Your task to perform on an android device: uninstall "McDonald's" Image 0: 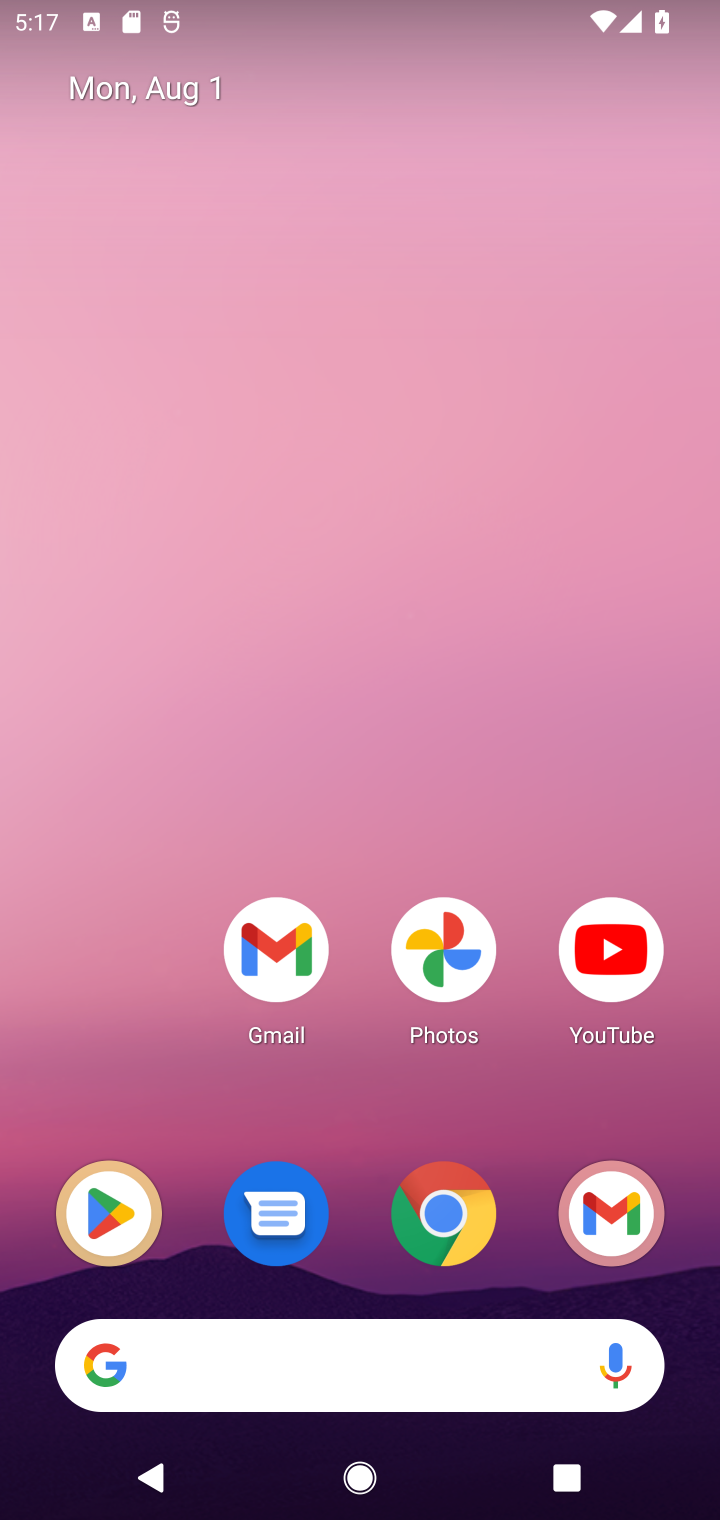
Step 0: drag from (532, 1073) to (514, 0)
Your task to perform on an android device: uninstall "McDonald's" Image 1: 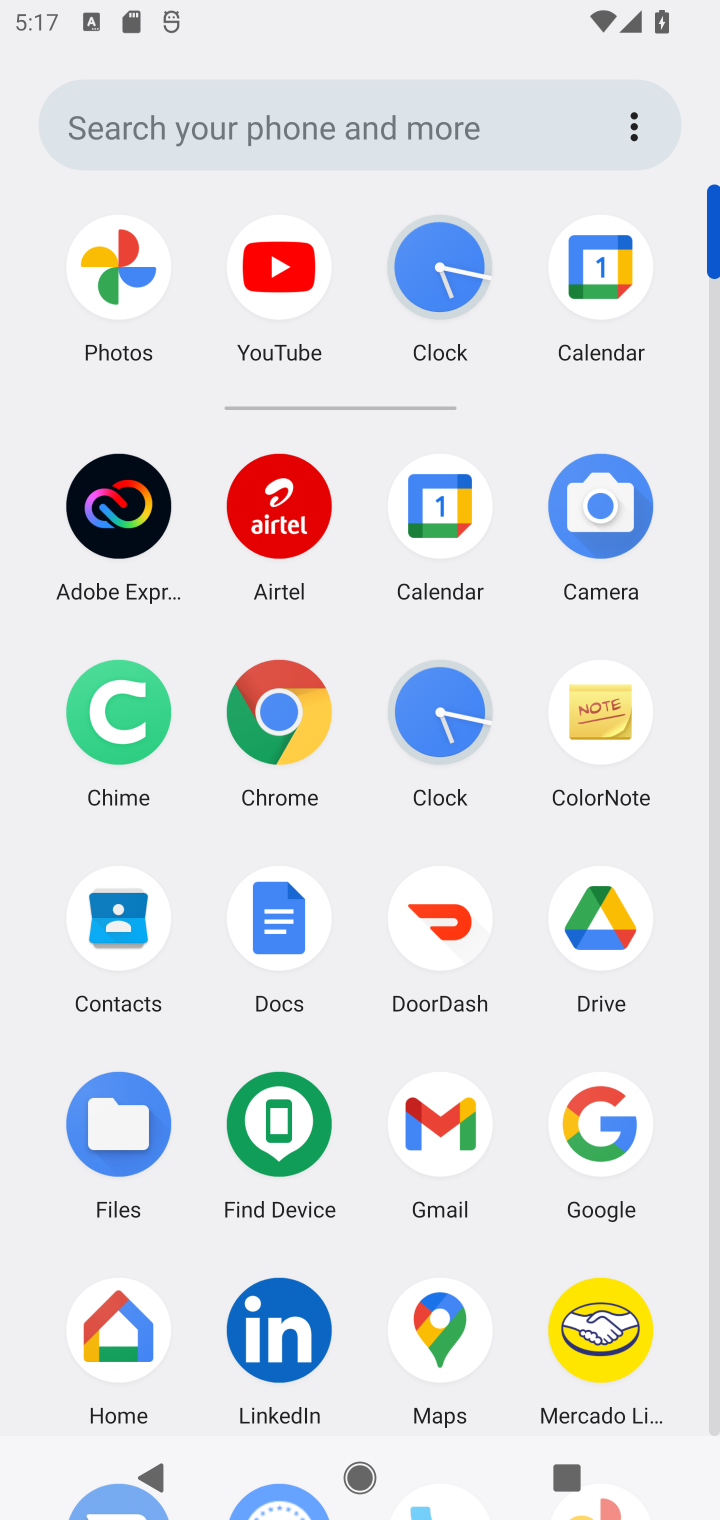
Step 1: drag from (502, 1214) to (504, 589)
Your task to perform on an android device: uninstall "McDonald's" Image 2: 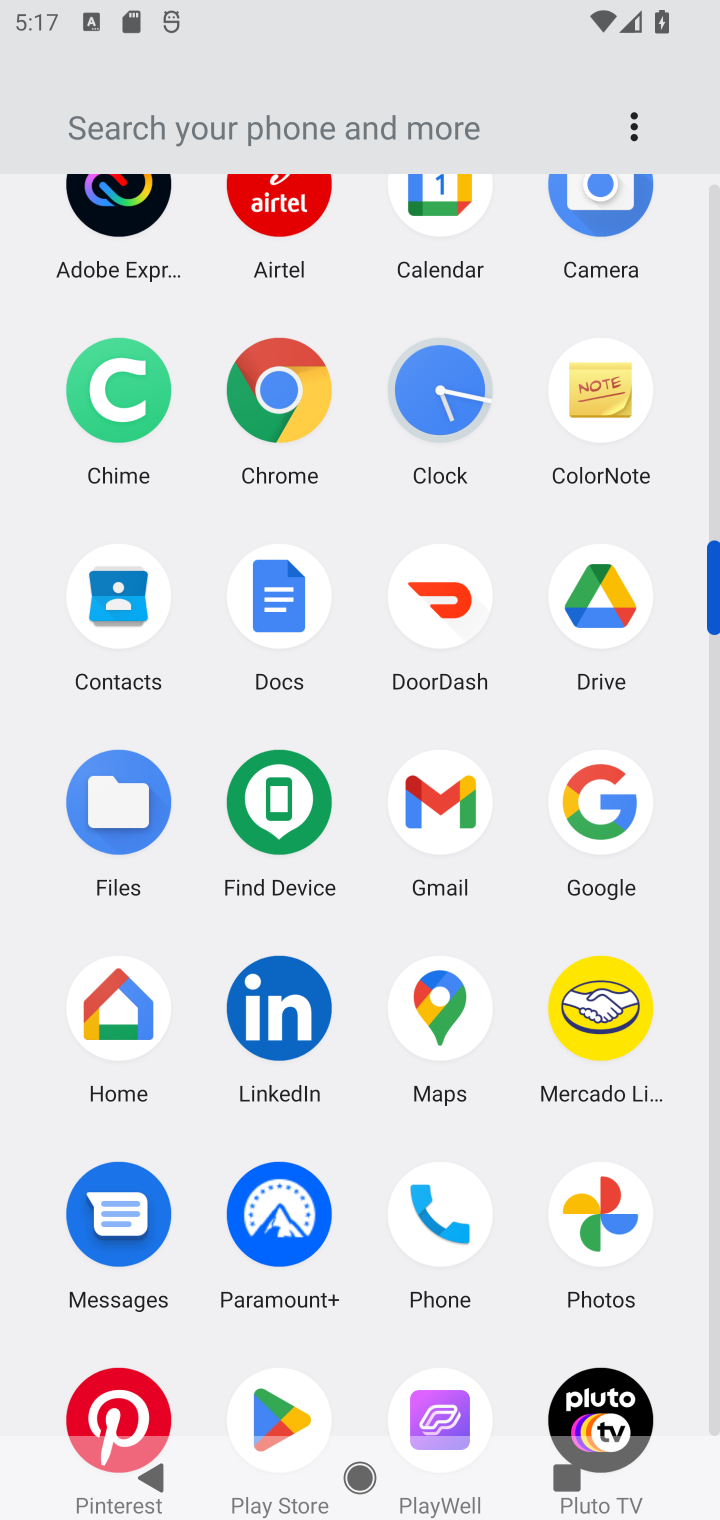
Step 2: click (281, 1403)
Your task to perform on an android device: uninstall "McDonald's" Image 3: 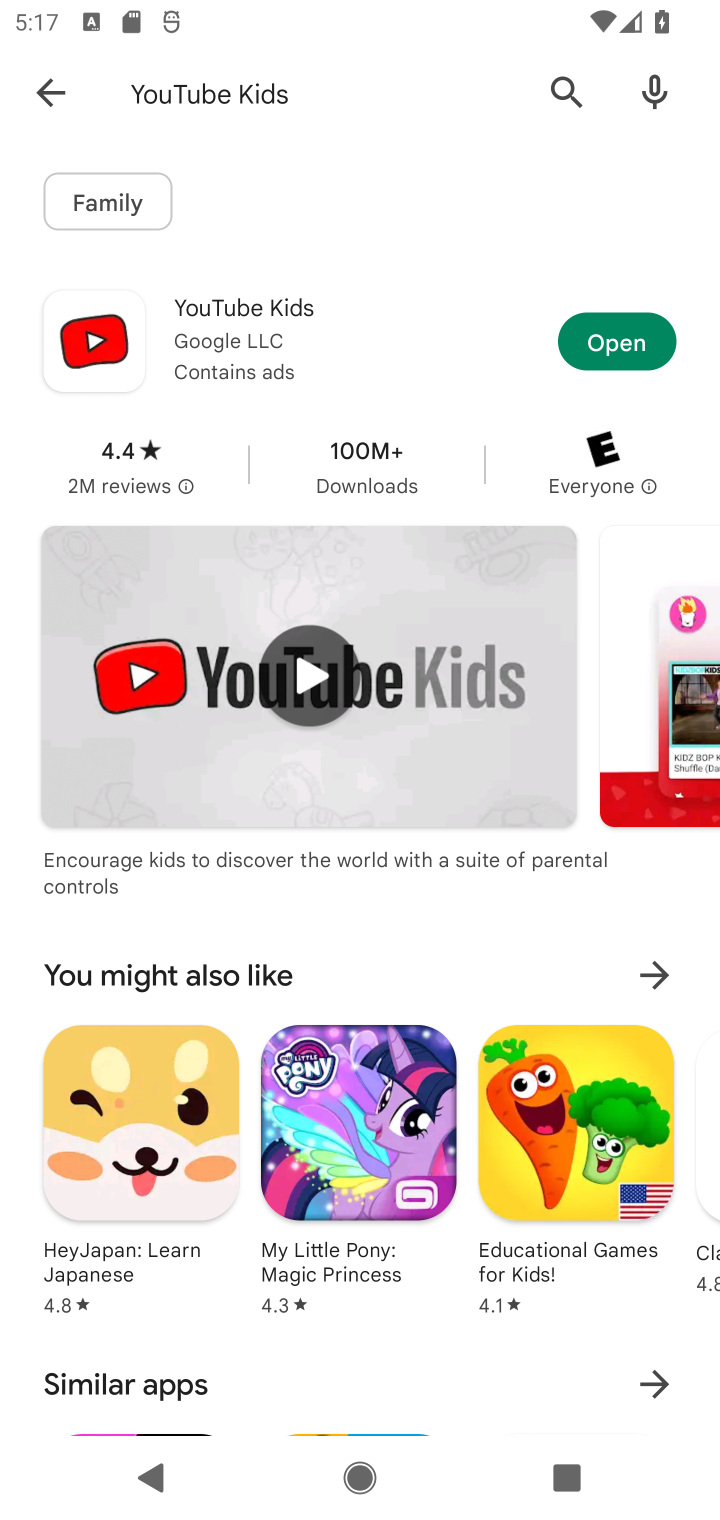
Step 3: click (552, 86)
Your task to perform on an android device: uninstall "McDonald's" Image 4: 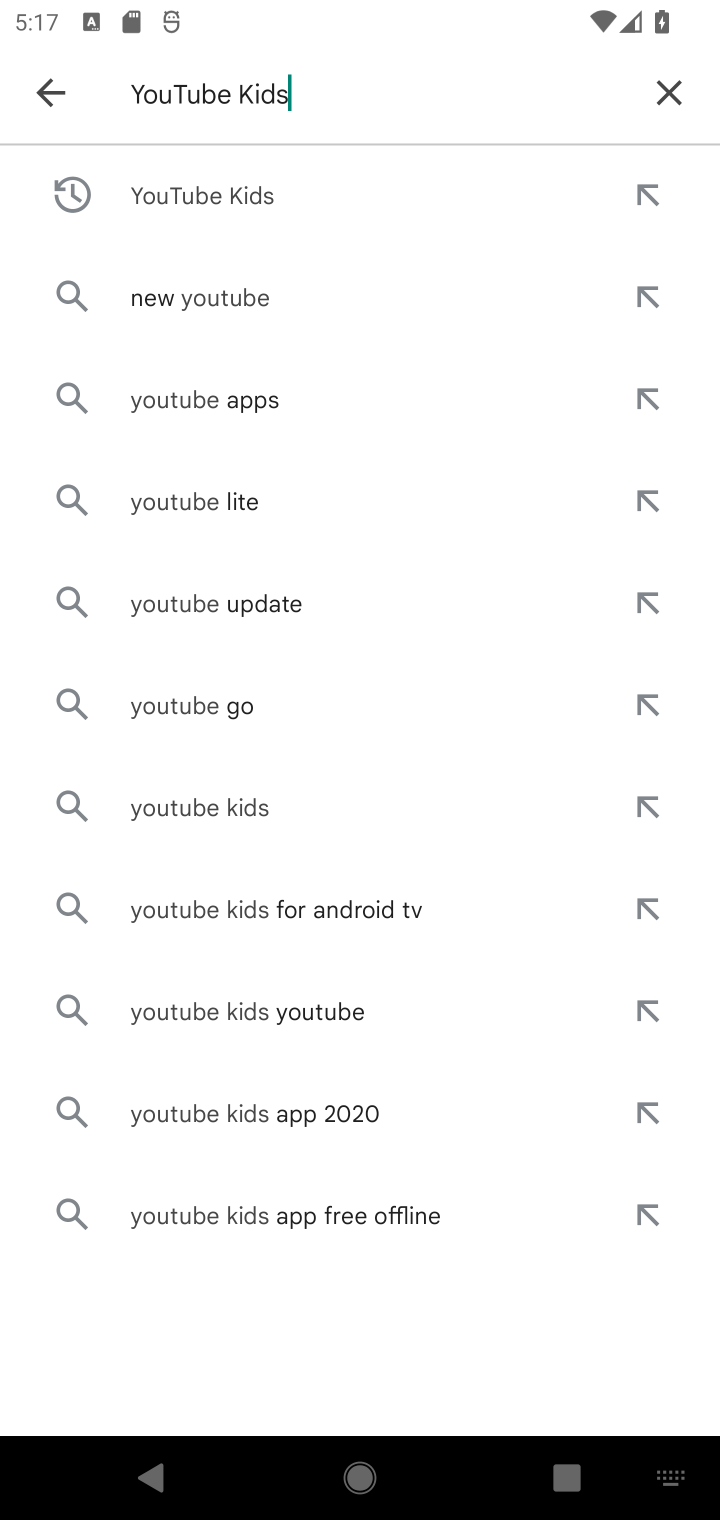
Step 4: click (675, 94)
Your task to perform on an android device: uninstall "McDonald's" Image 5: 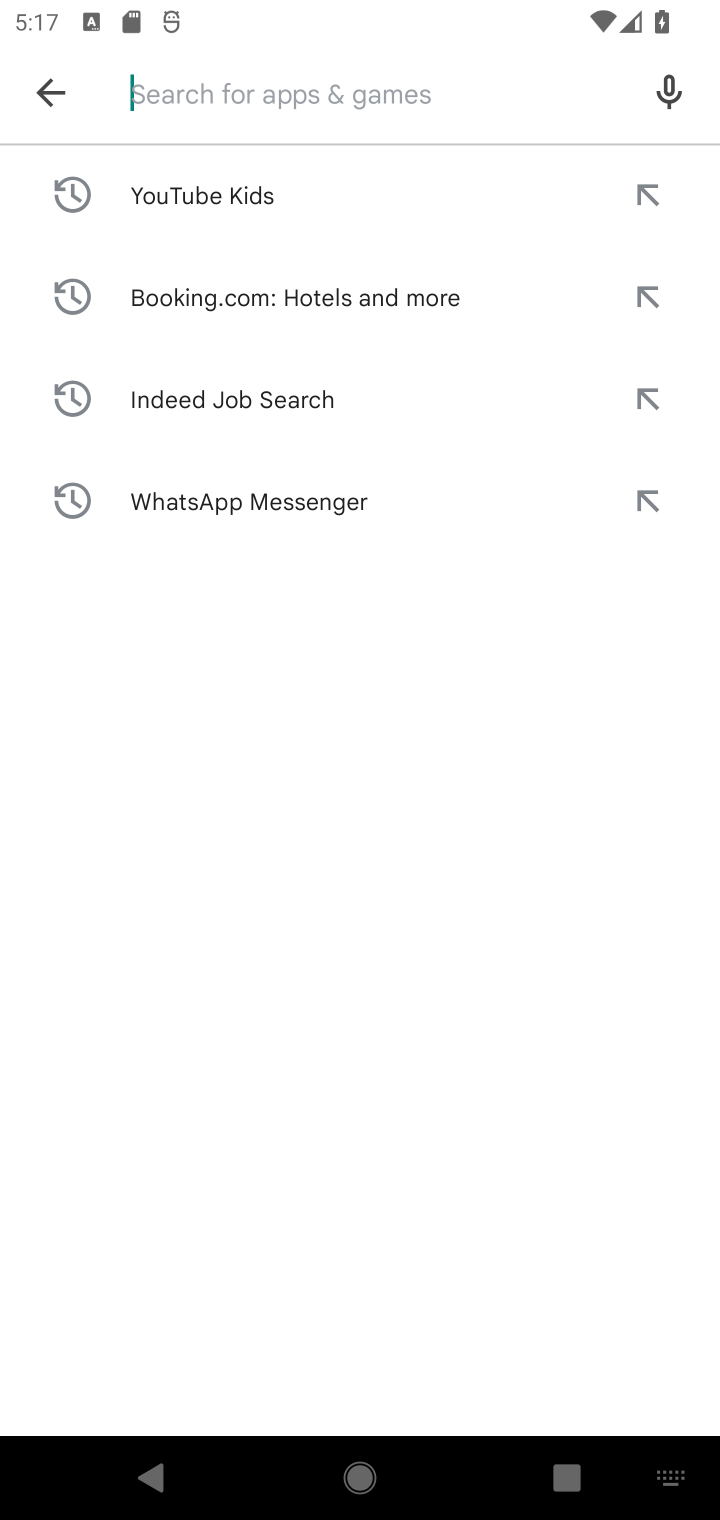
Step 5: type "McDonald's"
Your task to perform on an android device: uninstall "McDonald's" Image 6: 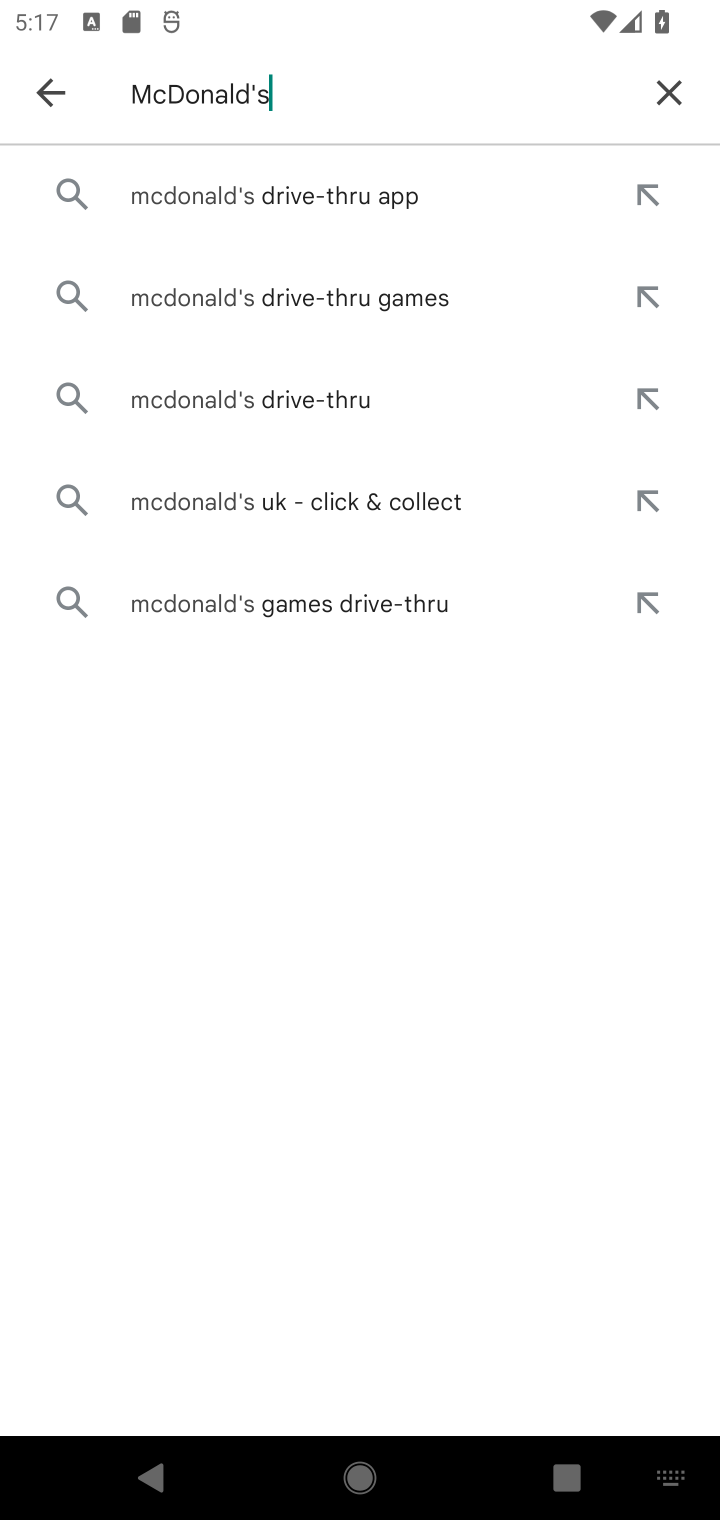
Step 6: press enter
Your task to perform on an android device: uninstall "McDonald's" Image 7: 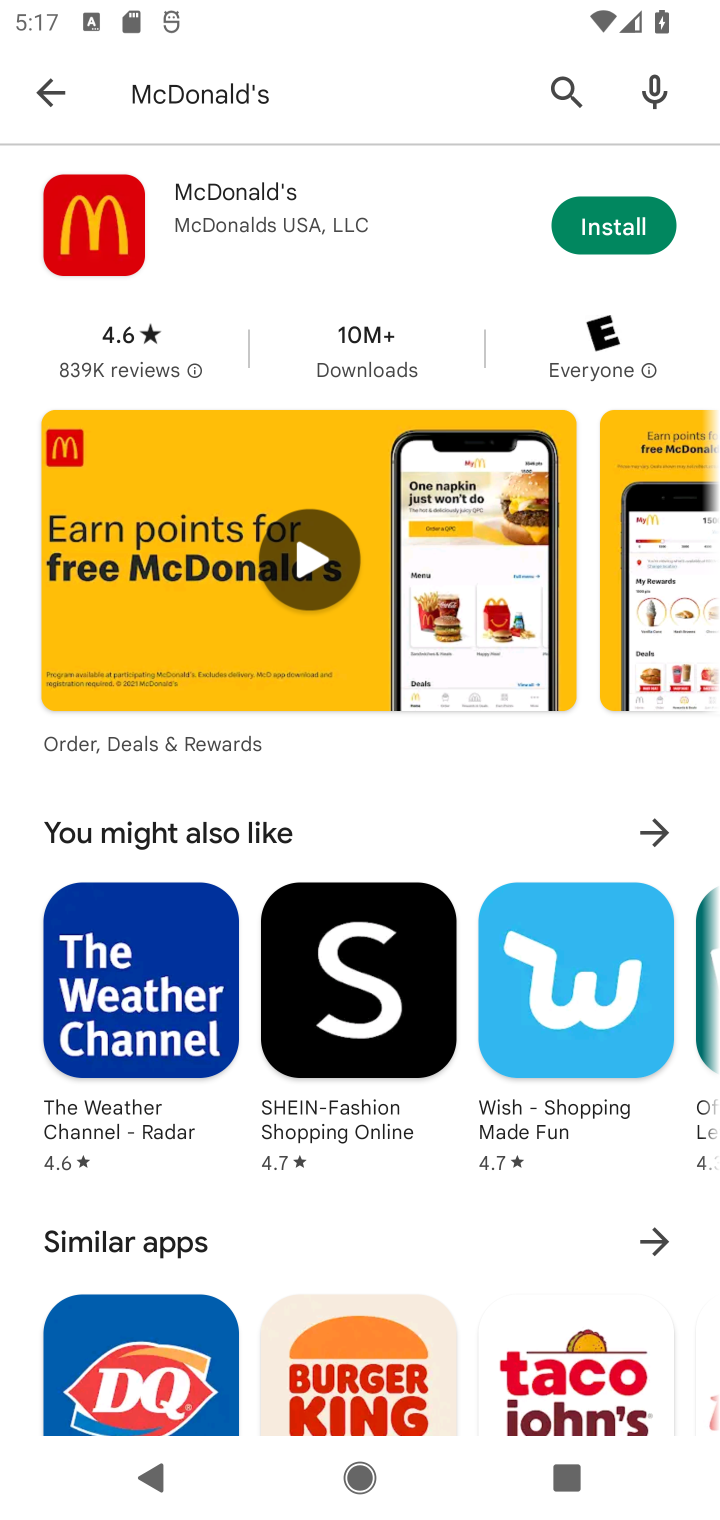
Step 7: task complete